Your task to perform on an android device: See recent photos Image 0: 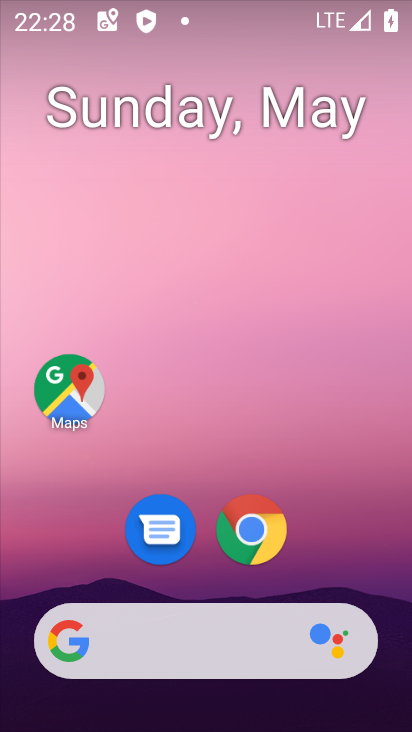
Step 0: drag from (369, 546) to (259, 11)
Your task to perform on an android device: See recent photos Image 1: 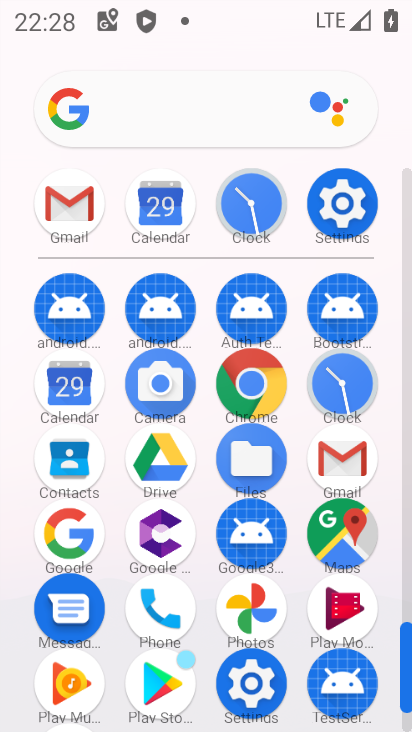
Step 1: click (257, 610)
Your task to perform on an android device: See recent photos Image 2: 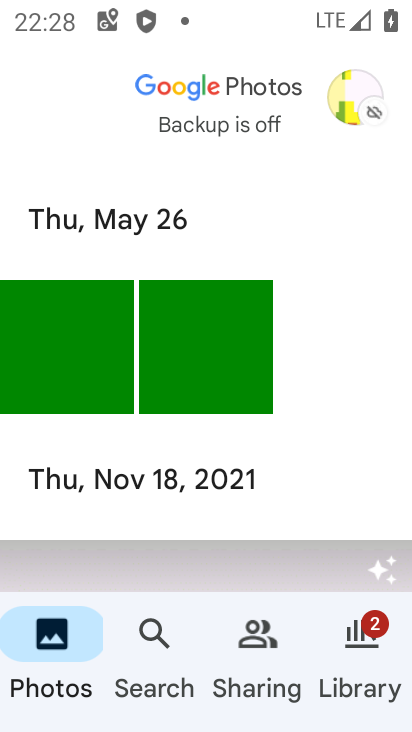
Step 2: click (352, 632)
Your task to perform on an android device: See recent photos Image 3: 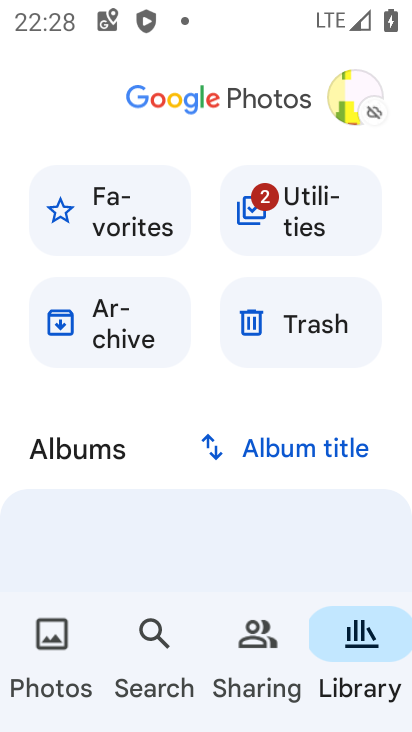
Step 3: click (128, 309)
Your task to perform on an android device: See recent photos Image 4: 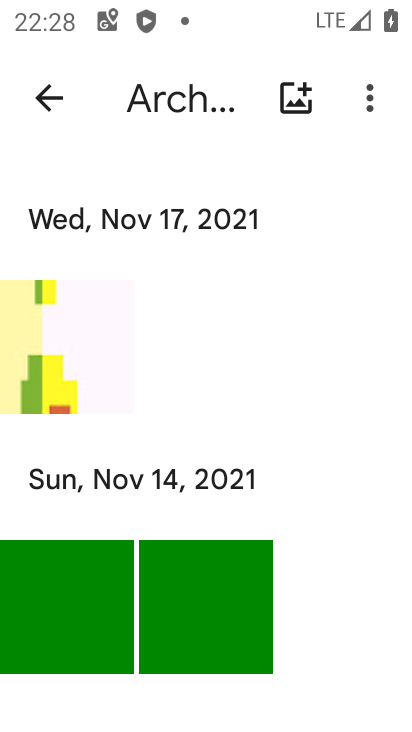
Step 4: task complete